Your task to perform on an android device: see tabs open on other devices in the chrome app Image 0: 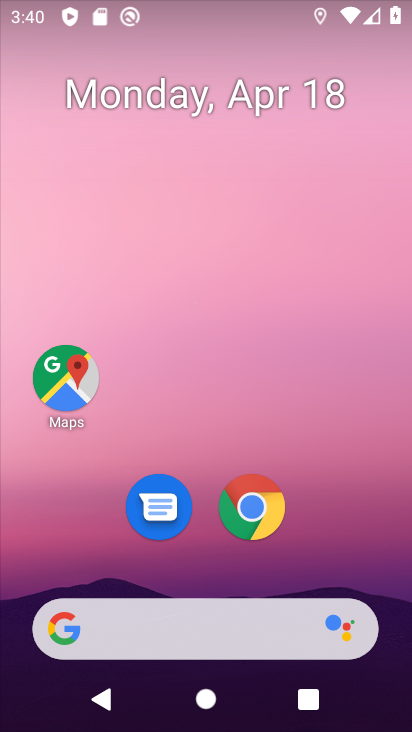
Step 0: click (254, 510)
Your task to perform on an android device: see tabs open on other devices in the chrome app Image 1: 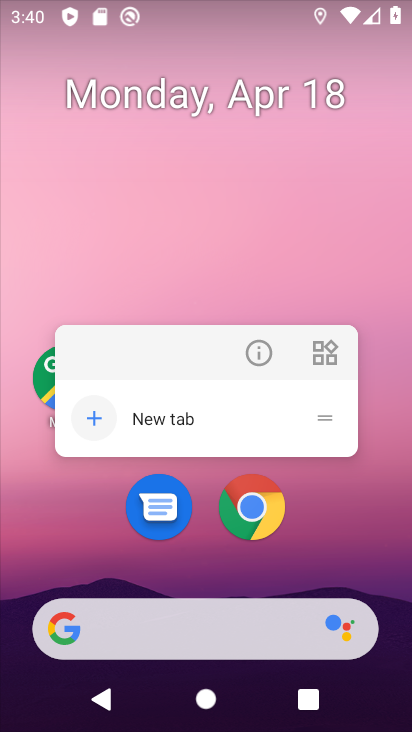
Step 1: click (254, 513)
Your task to perform on an android device: see tabs open on other devices in the chrome app Image 2: 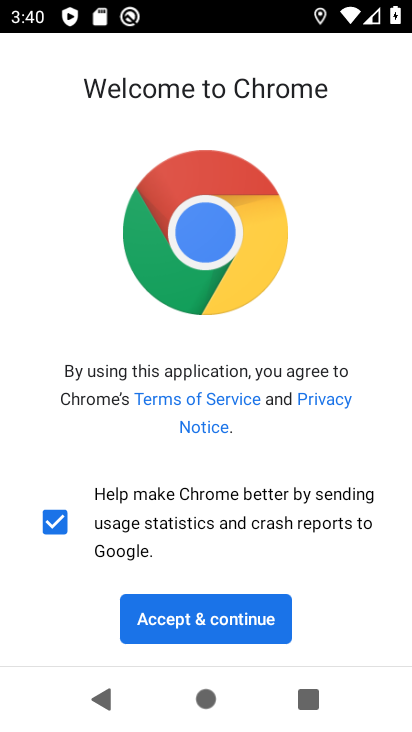
Step 2: click (267, 614)
Your task to perform on an android device: see tabs open on other devices in the chrome app Image 3: 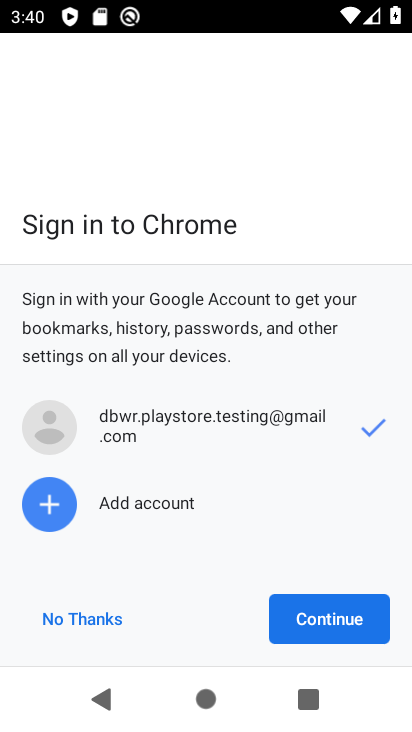
Step 3: click (345, 625)
Your task to perform on an android device: see tabs open on other devices in the chrome app Image 4: 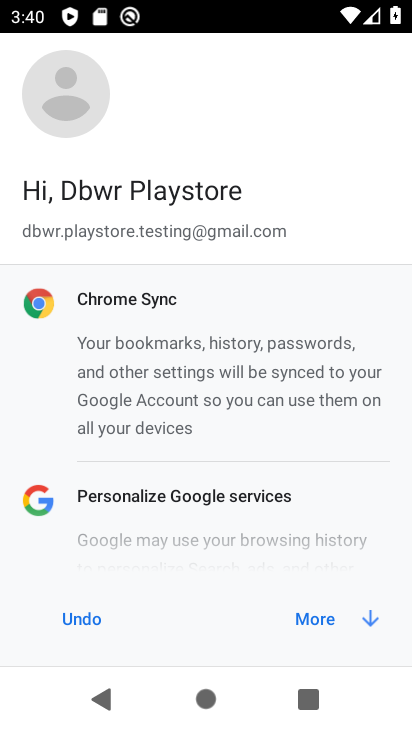
Step 4: click (313, 618)
Your task to perform on an android device: see tabs open on other devices in the chrome app Image 5: 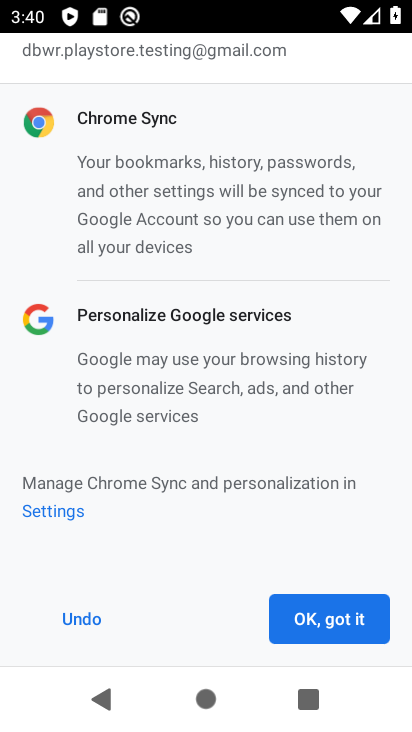
Step 5: click (312, 618)
Your task to perform on an android device: see tabs open on other devices in the chrome app Image 6: 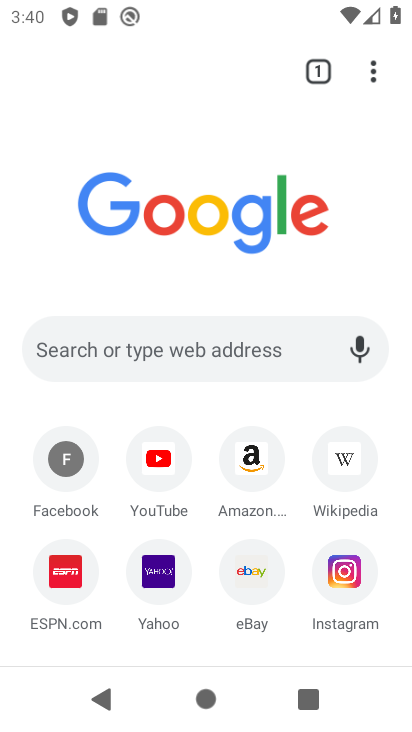
Step 6: click (372, 67)
Your task to perform on an android device: see tabs open on other devices in the chrome app Image 7: 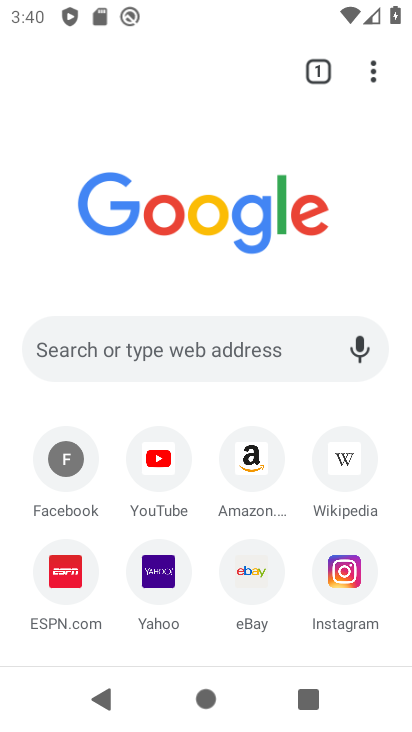
Step 7: click (373, 69)
Your task to perform on an android device: see tabs open on other devices in the chrome app Image 8: 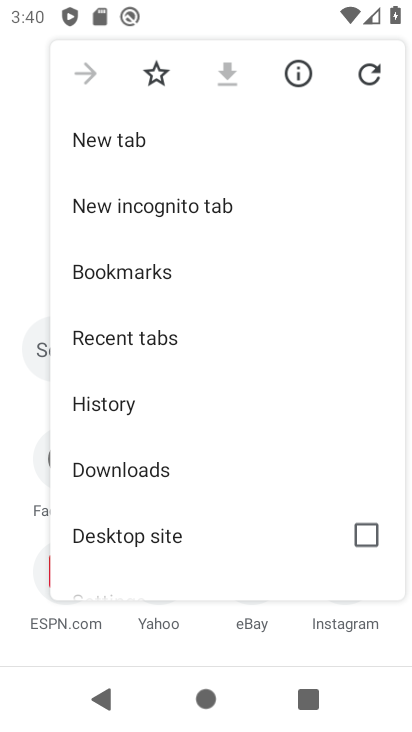
Step 8: click (206, 153)
Your task to perform on an android device: see tabs open on other devices in the chrome app Image 9: 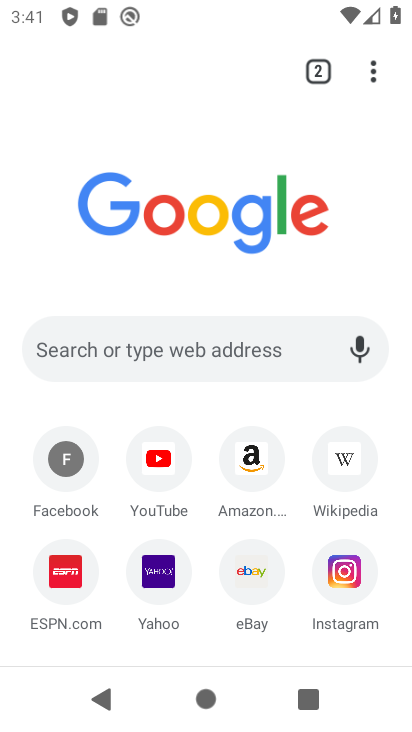
Step 9: click (372, 75)
Your task to perform on an android device: see tabs open on other devices in the chrome app Image 10: 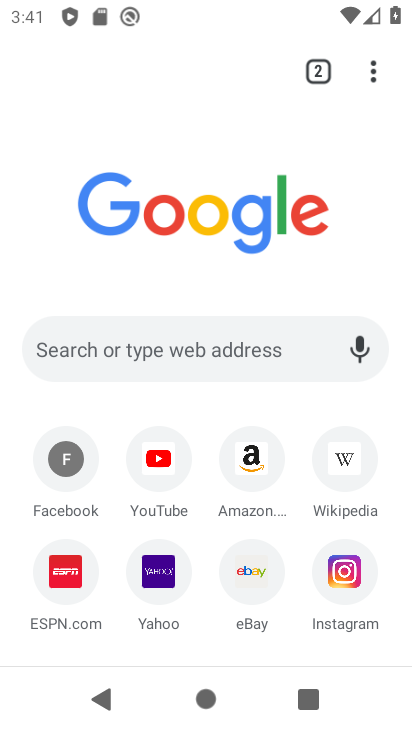
Step 10: click (372, 75)
Your task to perform on an android device: see tabs open on other devices in the chrome app Image 11: 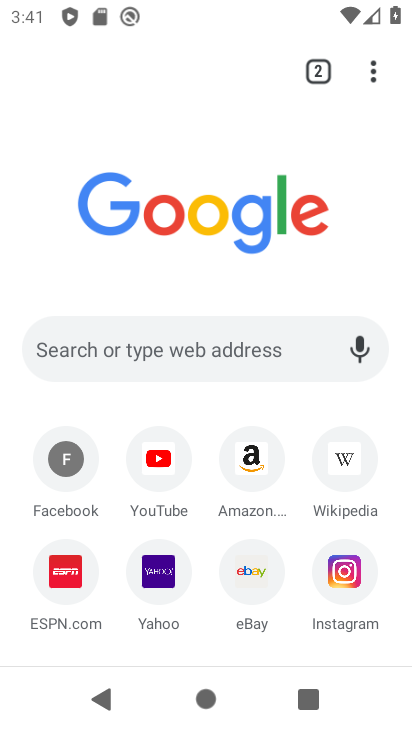
Step 11: click (372, 75)
Your task to perform on an android device: see tabs open on other devices in the chrome app Image 12: 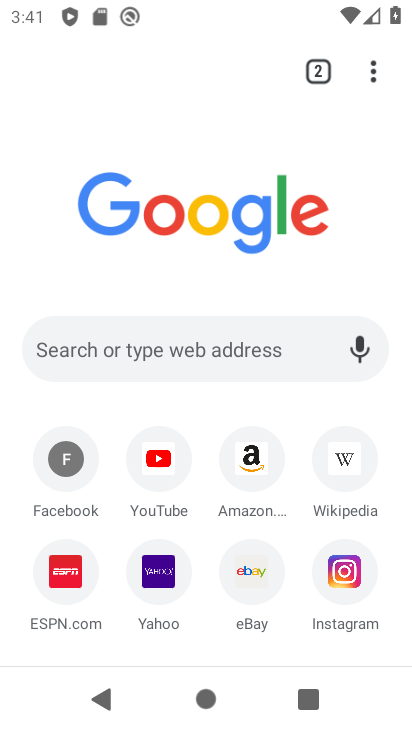
Step 12: click (372, 75)
Your task to perform on an android device: see tabs open on other devices in the chrome app Image 13: 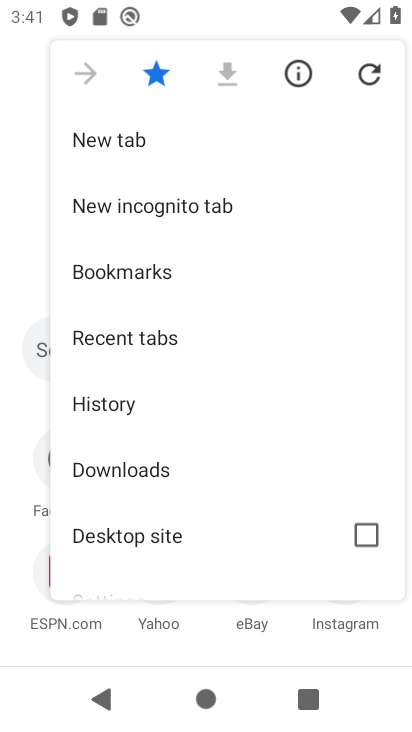
Step 13: click (179, 344)
Your task to perform on an android device: see tabs open on other devices in the chrome app Image 14: 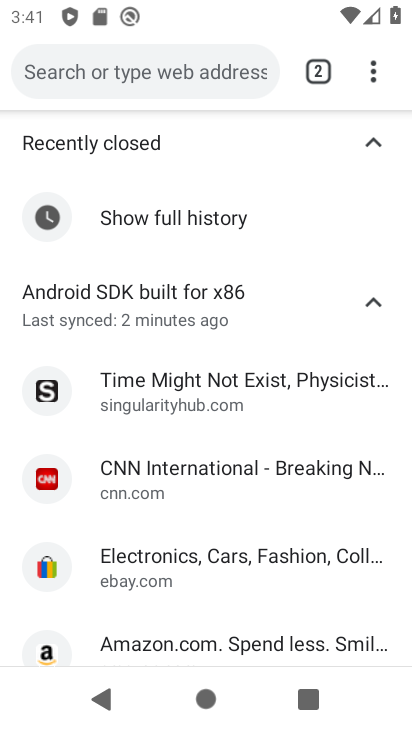
Step 14: task complete